Your task to perform on an android device: check google app version Image 0: 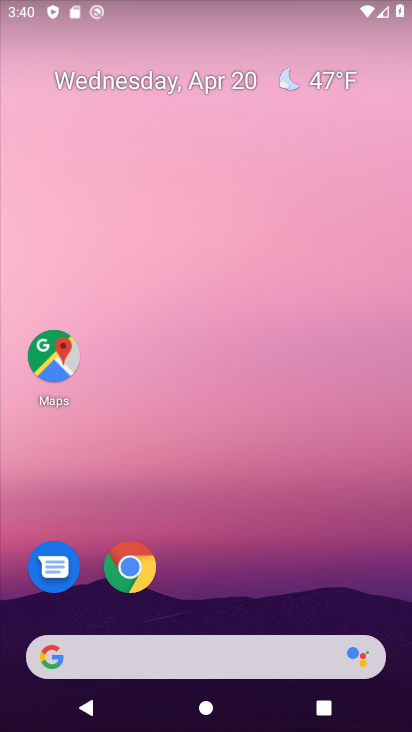
Step 0: click (178, 661)
Your task to perform on an android device: check google app version Image 1: 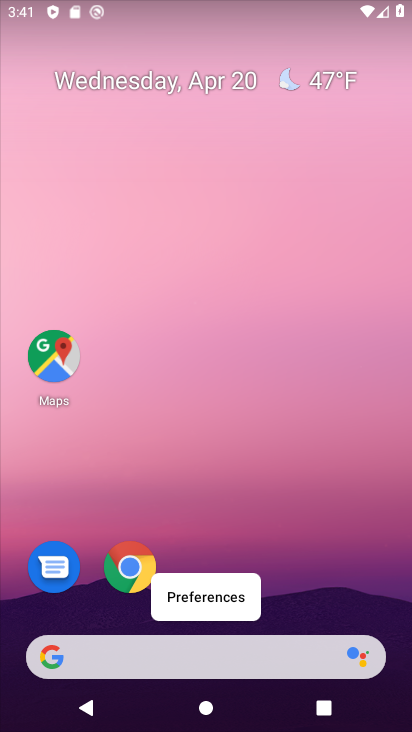
Step 1: click (137, 647)
Your task to perform on an android device: check google app version Image 2: 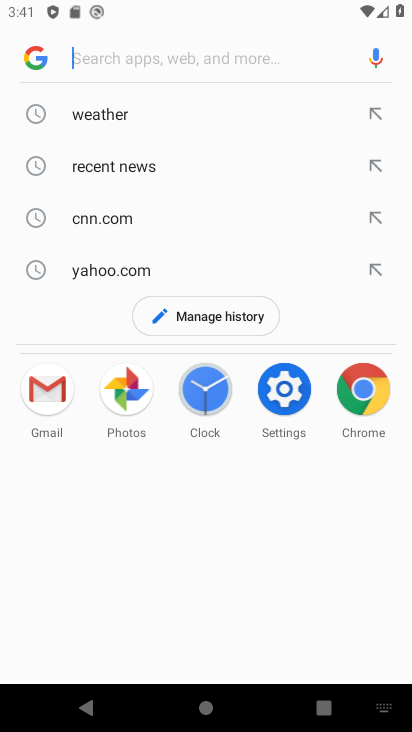
Step 2: click (34, 70)
Your task to perform on an android device: check google app version Image 3: 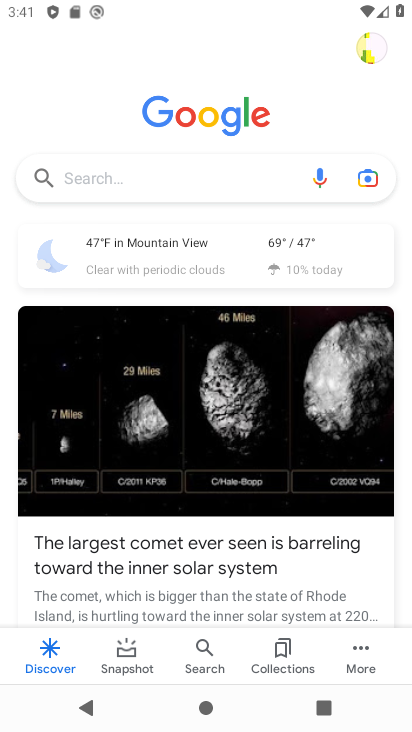
Step 3: click (355, 659)
Your task to perform on an android device: check google app version Image 4: 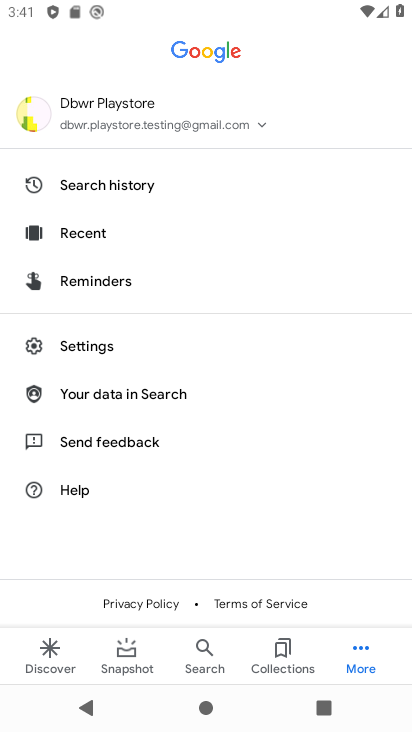
Step 4: click (355, 659)
Your task to perform on an android device: check google app version Image 5: 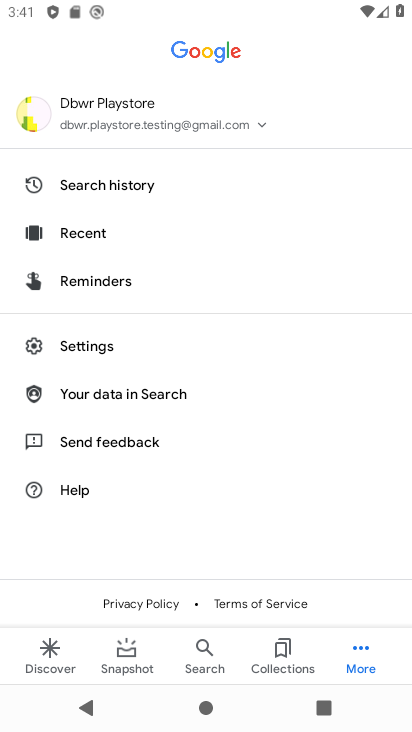
Step 5: click (78, 339)
Your task to perform on an android device: check google app version Image 6: 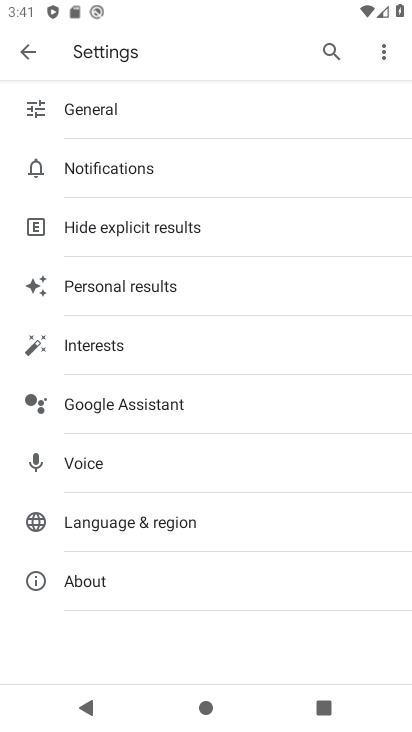
Step 6: click (255, 582)
Your task to perform on an android device: check google app version Image 7: 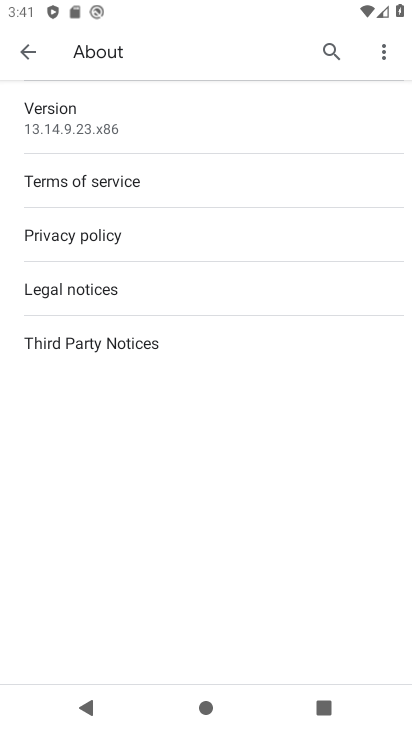
Step 7: task complete